Your task to perform on an android device: Open sound settings Image 0: 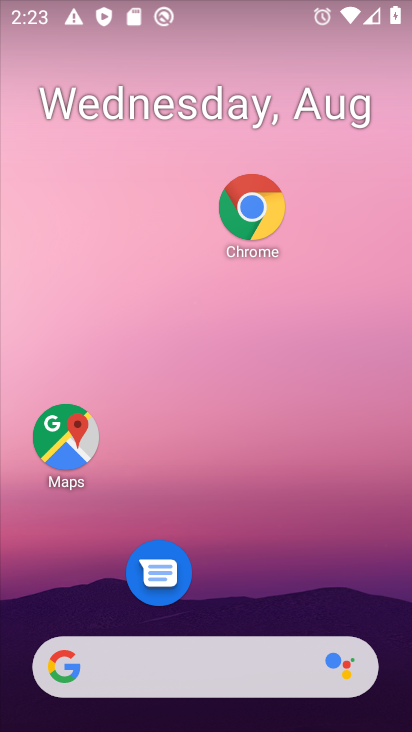
Step 0: drag from (208, 582) to (263, 11)
Your task to perform on an android device: Open sound settings Image 1: 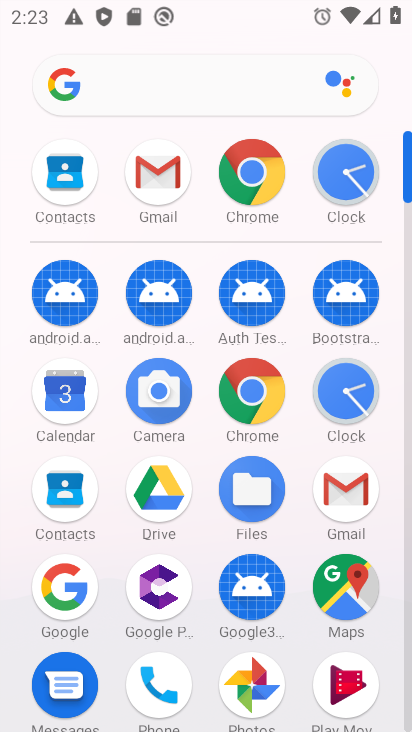
Step 1: drag from (218, 520) to (273, 133)
Your task to perform on an android device: Open sound settings Image 2: 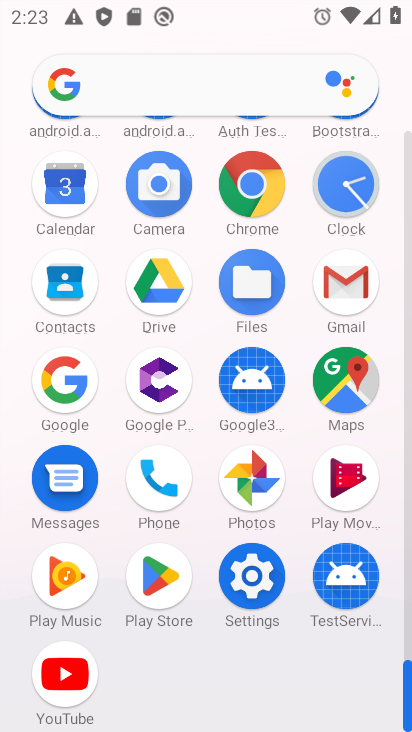
Step 2: click (253, 584)
Your task to perform on an android device: Open sound settings Image 3: 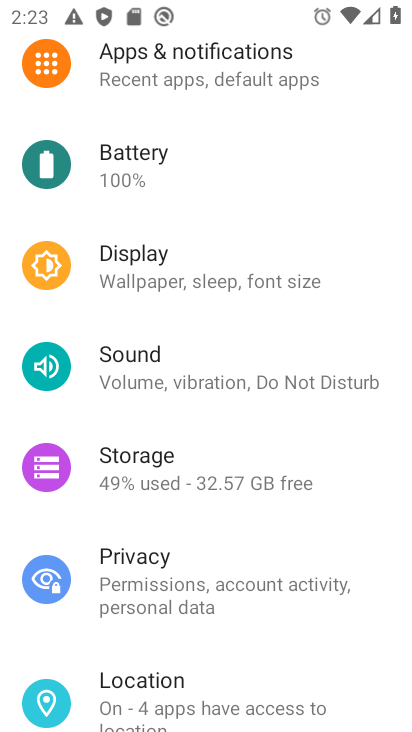
Step 3: click (163, 364)
Your task to perform on an android device: Open sound settings Image 4: 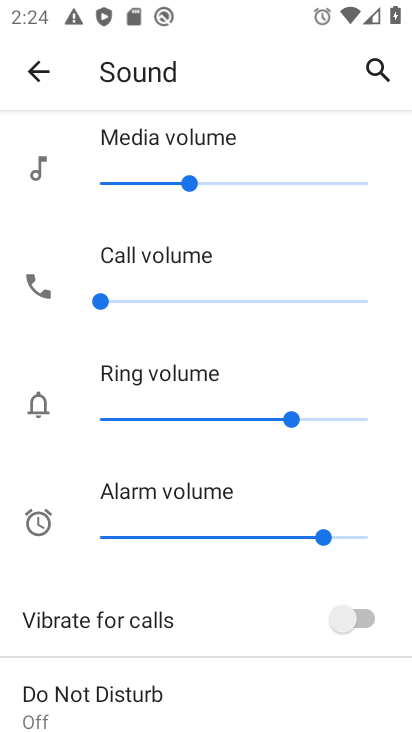
Step 4: task complete